Your task to perform on an android device: Open settings on Google Maps Image 0: 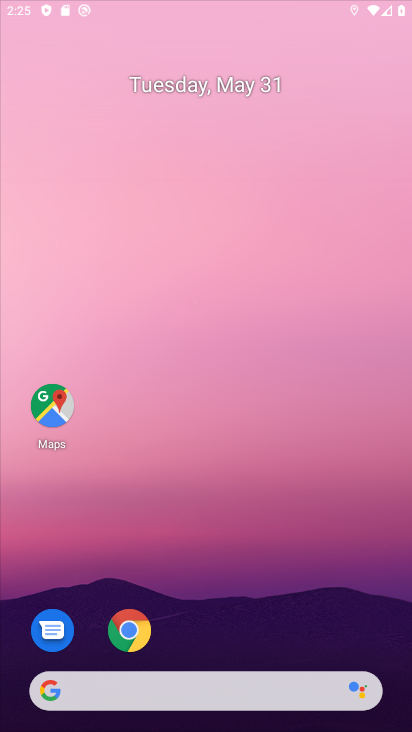
Step 0: drag from (241, 282) to (248, 91)
Your task to perform on an android device: Open settings on Google Maps Image 1: 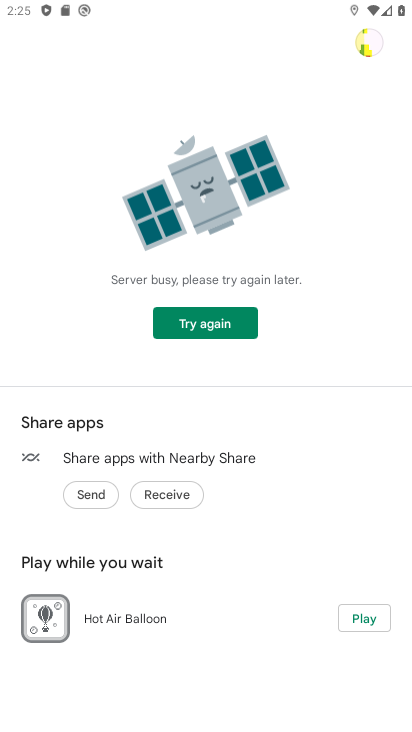
Step 1: press back button
Your task to perform on an android device: Open settings on Google Maps Image 2: 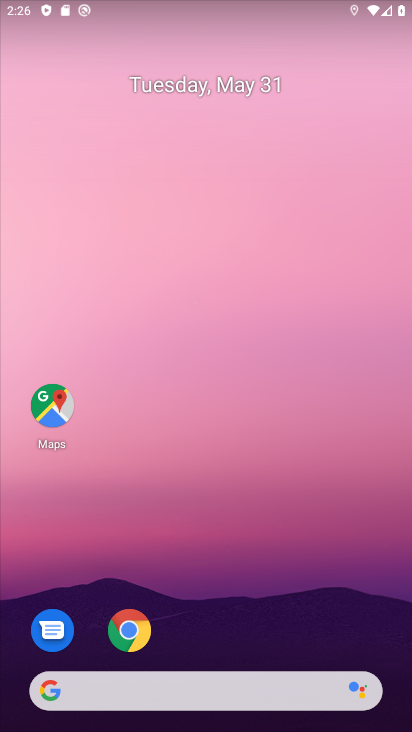
Step 2: click (47, 407)
Your task to perform on an android device: Open settings on Google Maps Image 3: 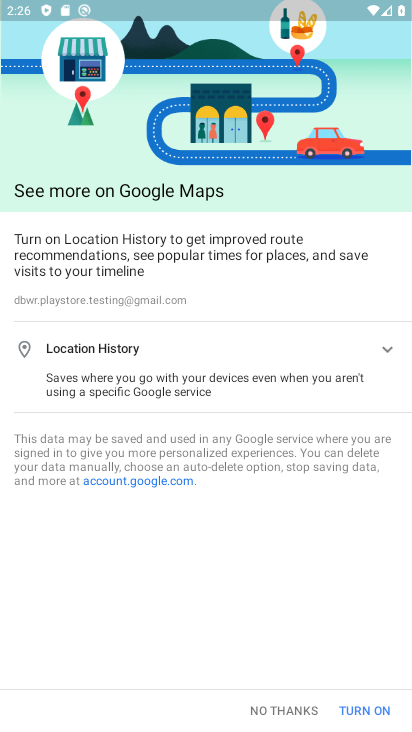
Step 3: click (281, 709)
Your task to perform on an android device: Open settings on Google Maps Image 4: 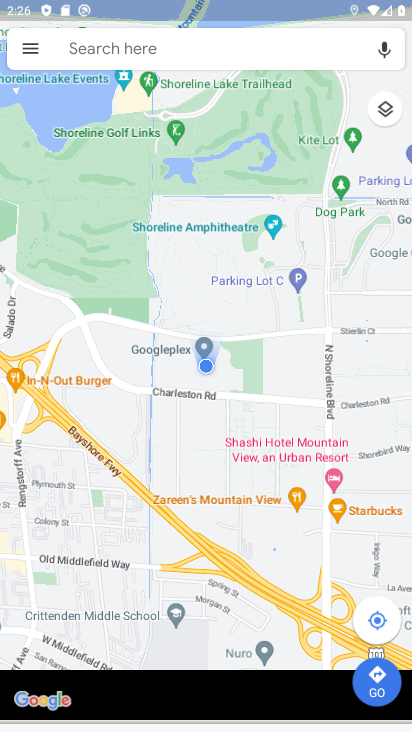
Step 4: click (30, 48)
Your task to perform on an android device: Open settings on Google Maps Image 5: 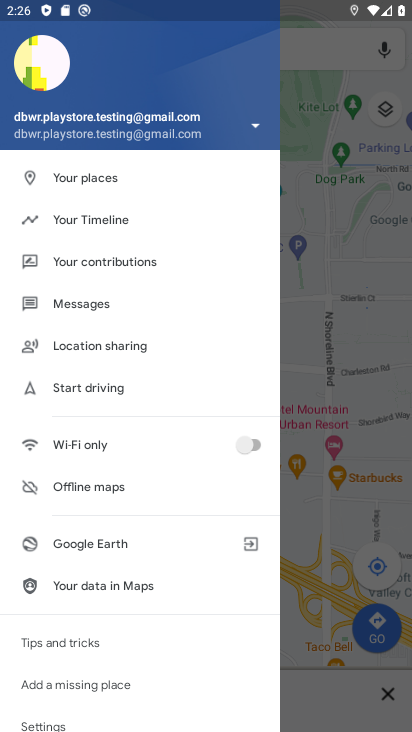
Step 5: click (46, 721)
Your task to perform on an android device: Open settings on Google Maps Image 6: 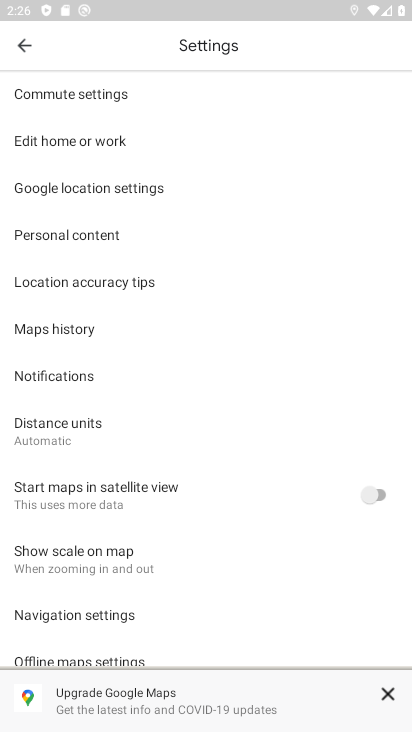
Step 6: task complete